Your task to perform on an android device: see tabs open on other devices in the chrome app Image 0: 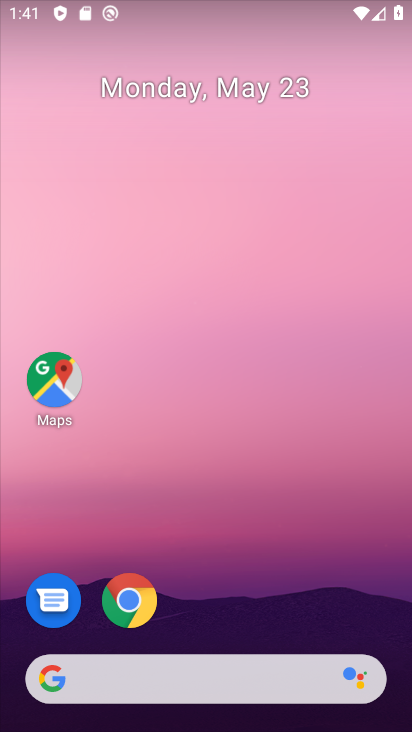
Step 0: drag from (258, 624) to (190, 52)
Your task to perform on an android device: see tabs open on other devices in the chrome app Image 1: 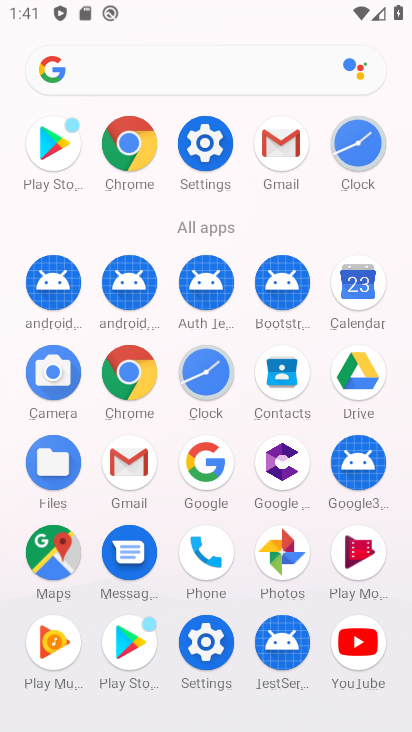
Step 1: click (132, 145)
Your task to perform on an android device: see tabs open on other devices in the chrome app Image 2: 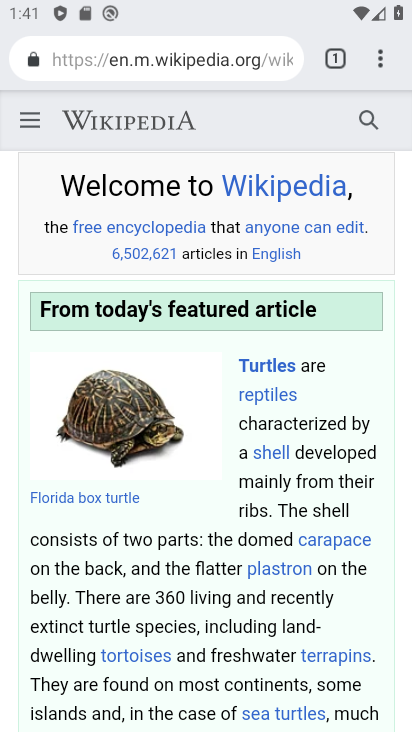
Step 2: click (377, 52)
Your task to perform on an android device: see tabs open on other devices in the chrome app Image 3: 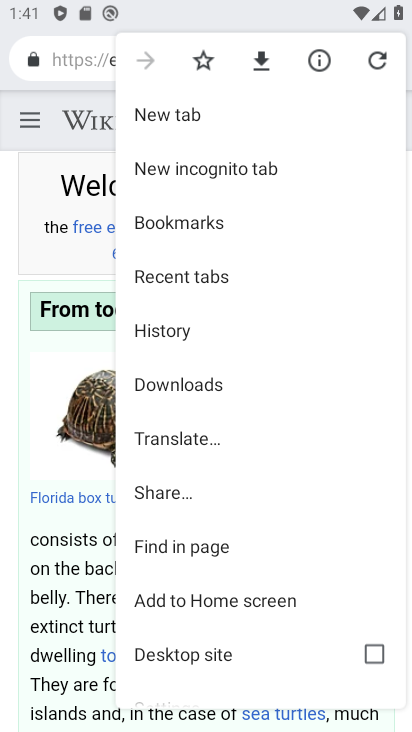
Step 3: click (225, 286)
Your task to perform on an android device: see tabs open on other devices in the chrome app Image 4: 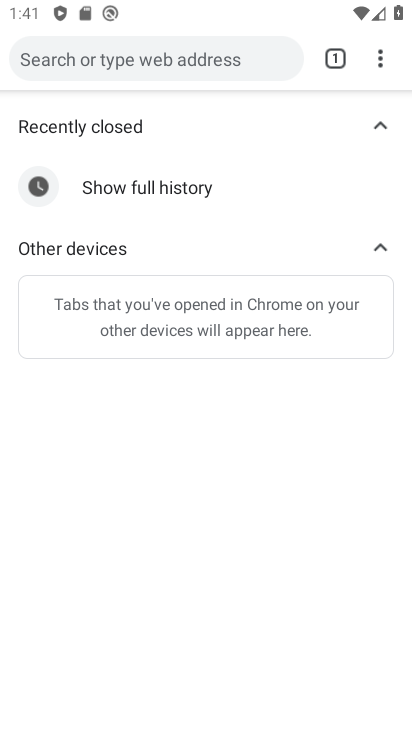
Step 4: task complete